Your task to perform on an android device: toggle wifi Image 0: 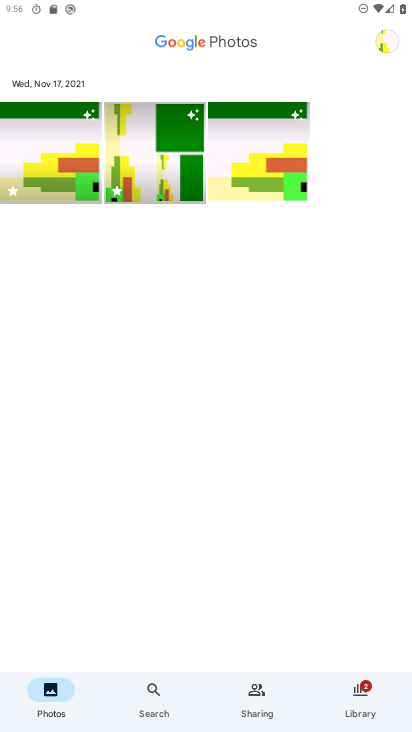
Step 0: press home button
Your task to perform on an android device: toggle wifi Image 1: 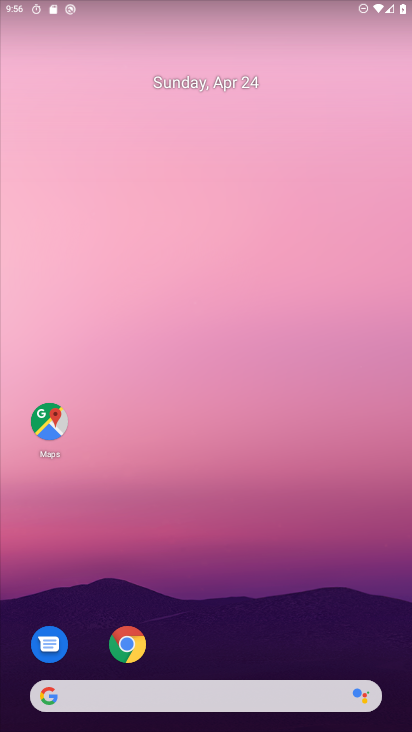
Step 1: drag from (217, 667) to (133, 26)
Your task to perform on an android device: toggle wifi Image 2: 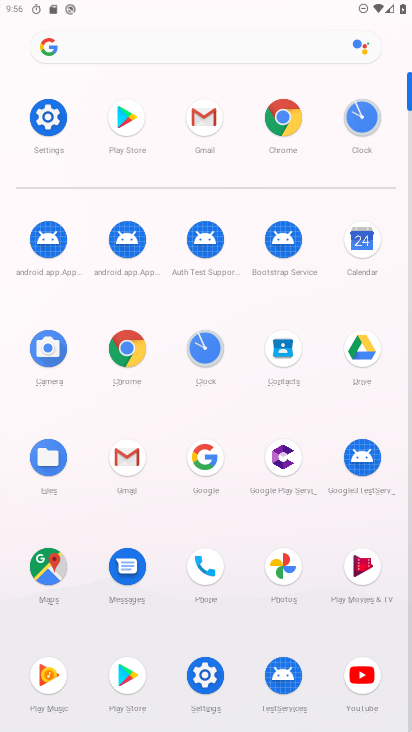
Step 2: click (40, 111)
Your task to perform on an android device: toggle wifi Image 3: 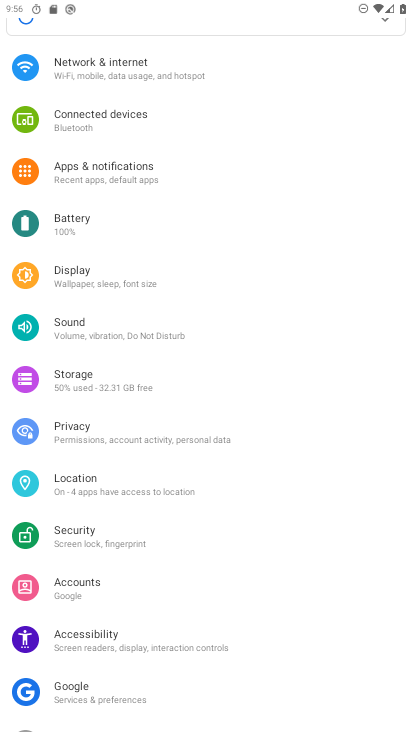
Step 3: click (128, 76)
Your task to perform on an android device: toggle wifi Image 4: 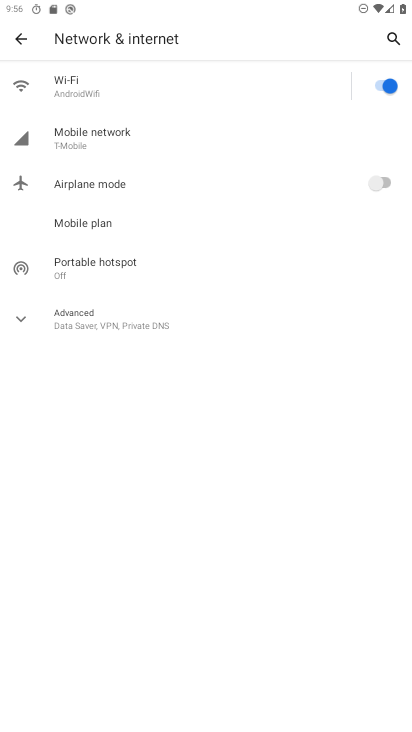
Step 4: click (90, 81)
Your task to perform on an android device: toggle wifi Image 5: 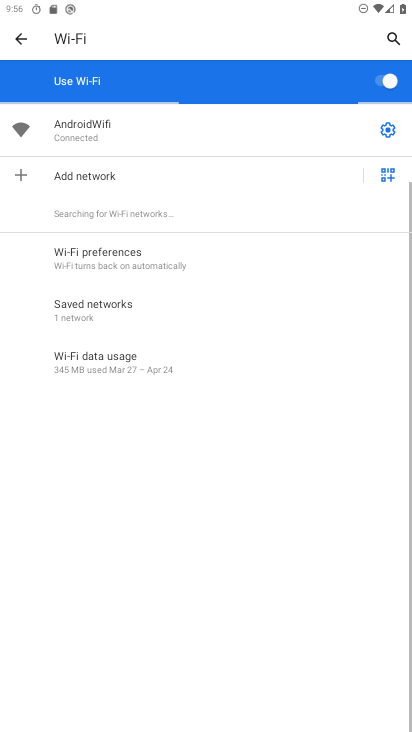
Step 5: click (381, 82)
Your task to perform on an android device: toggle wifi Image 6: 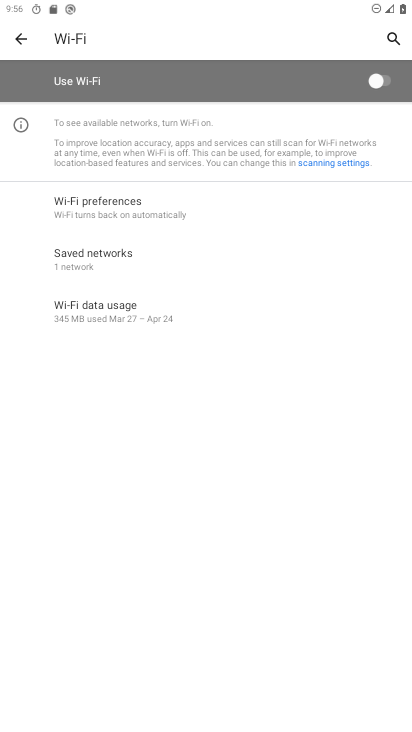
Step 6: task complete